Your task to perform on an android device: all mails in gmail Image 0: 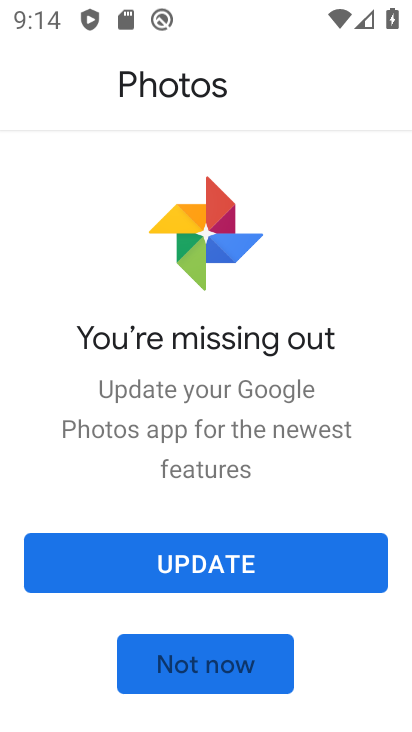
Step 0: press home button
Your task to perform on an android device: all mails in gmail Image 1: 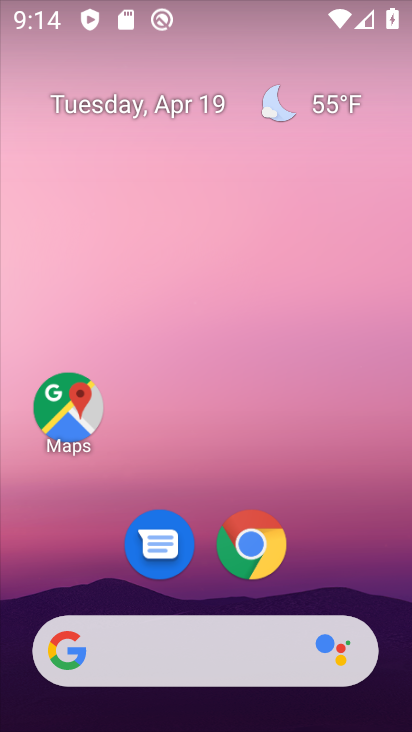
Step 1: drag from (366, 564) to (376, 120)
Your task to perform on an android device: all mails in gmail Image 2: 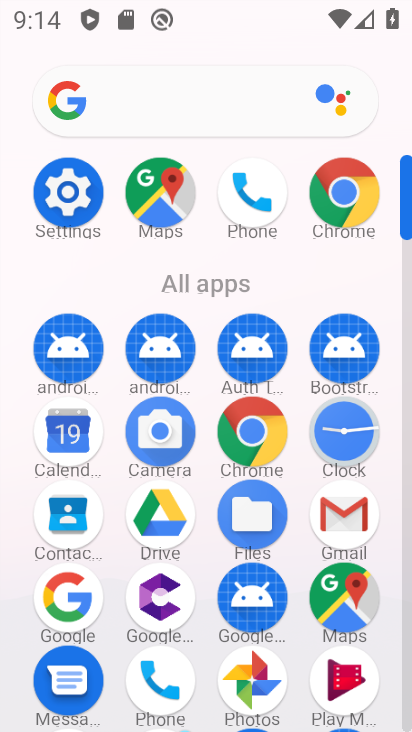
Step 2: click (328, 520)
Your task to perform on an android device: all mails in gmail Image 3: 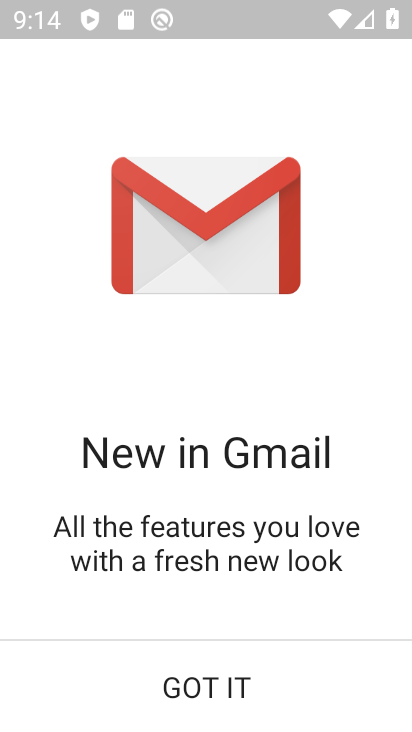
Step 3: click (224, 688)
Your task to perform on an android device: all mails in gmail Image 4: 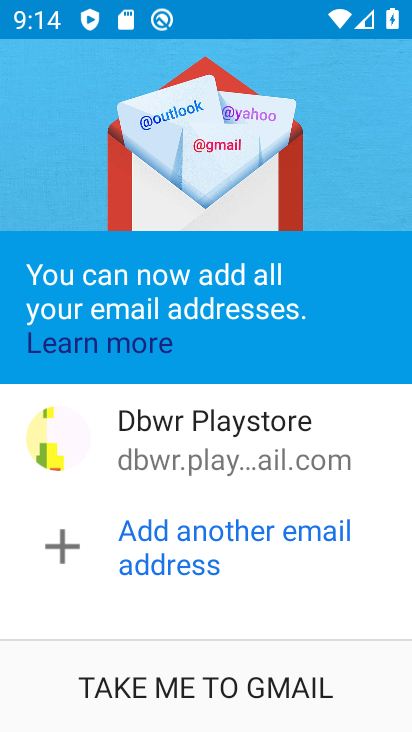
Step 4: click (291, 690)
Your task to perform on an android device: all mails in gmail Image 5: 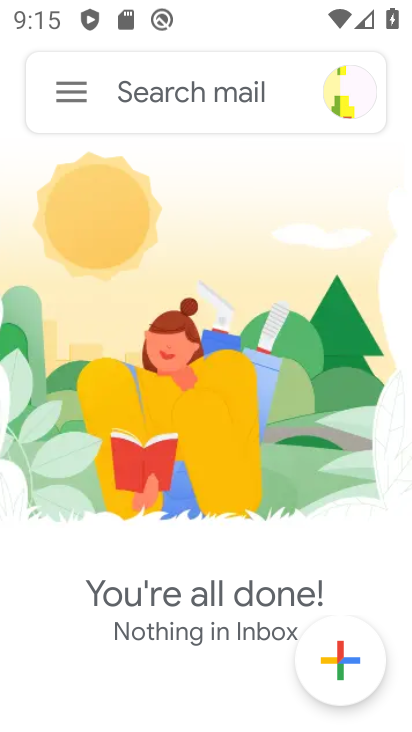
Step 5: click (83, 95)
Your task to perform on an android device: all mails in gmail Image 6: 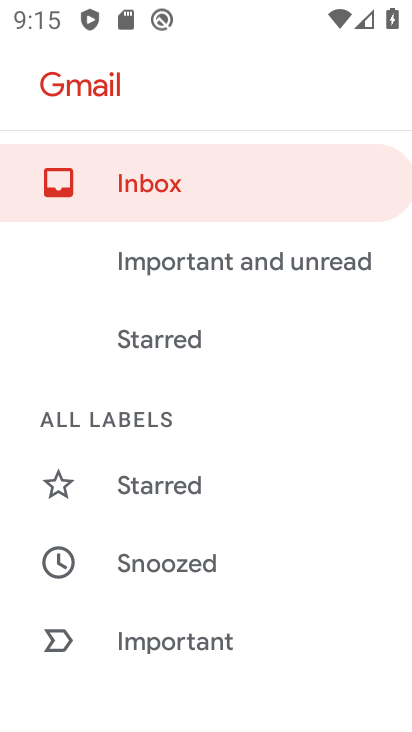
Step 6: drag from (328, 583) to (343, 313)
Your task to perform on an android device: all mails in gmail Image 7: 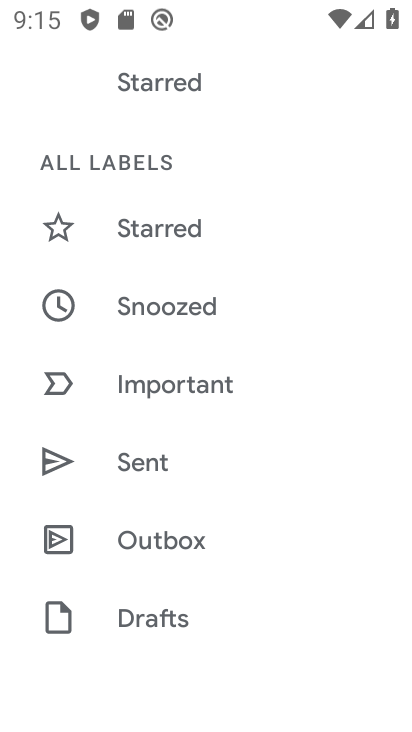
Step 7: drag from (314, 583) to (337, 281)
Your task to perform on an android device: all mails in gmail Image 8: 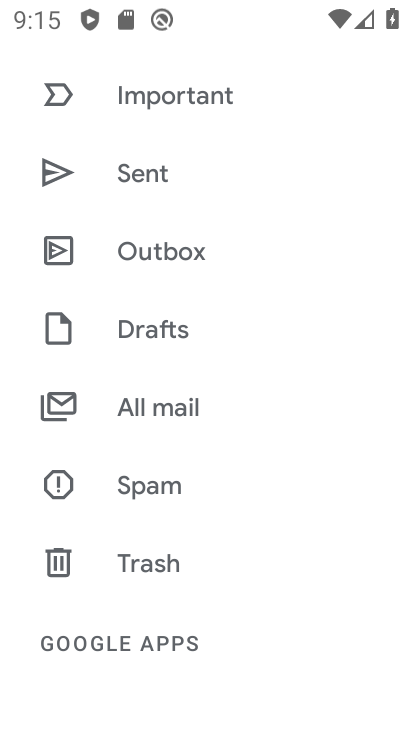
Step 8: click (170, 408)
Your task to perform on an android device: all mails in gmail Image 9: 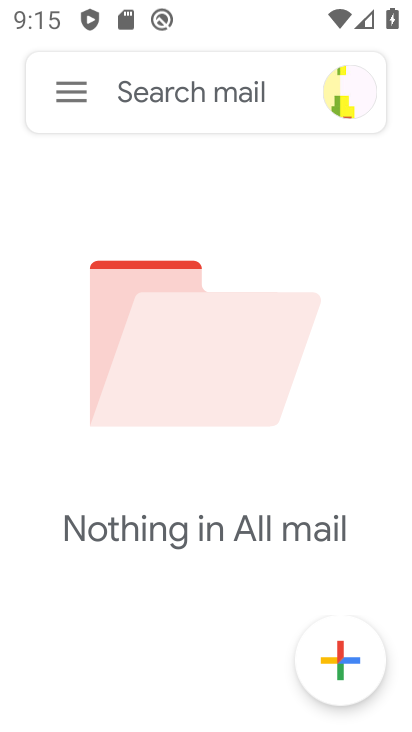
Step 9: task complete